Your task to perform on an android device: open a bookmark in the chrome app Image 0: 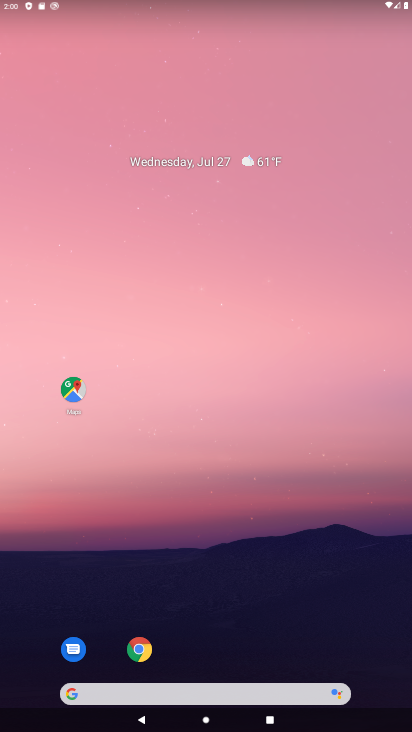
Step 0: click (144, 657)
Your task to perform on an android device: open a bookmark in the chrome app Image 1: 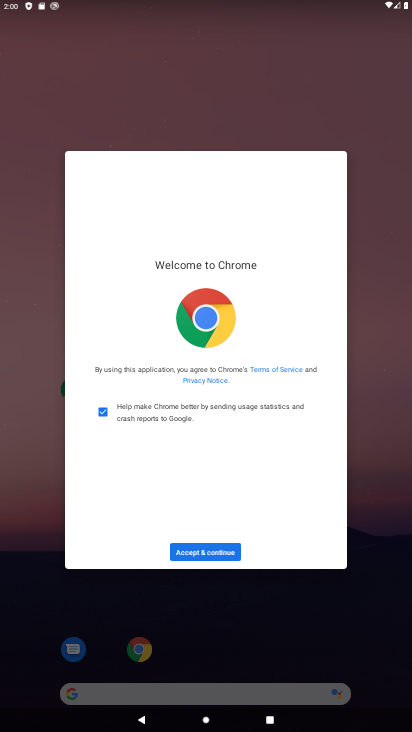
Step 1: click (193, 553)
Your task to perform on an android device: open a bookmark in the chrome app Image 2: 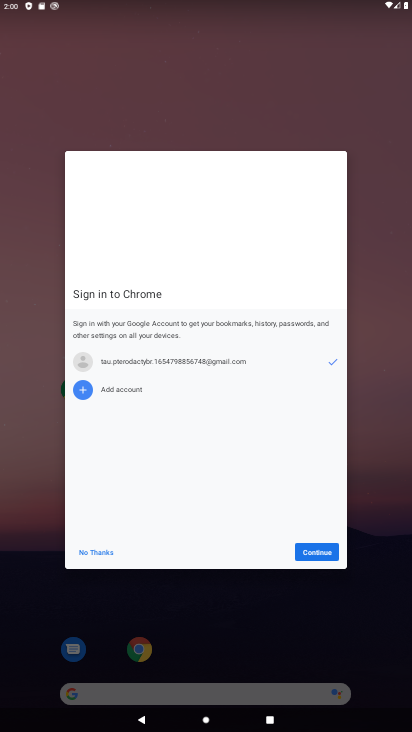
Step 2: click (311, 553)
Your task to perform on an android device: open a bookmark in the chrome app Image 3: 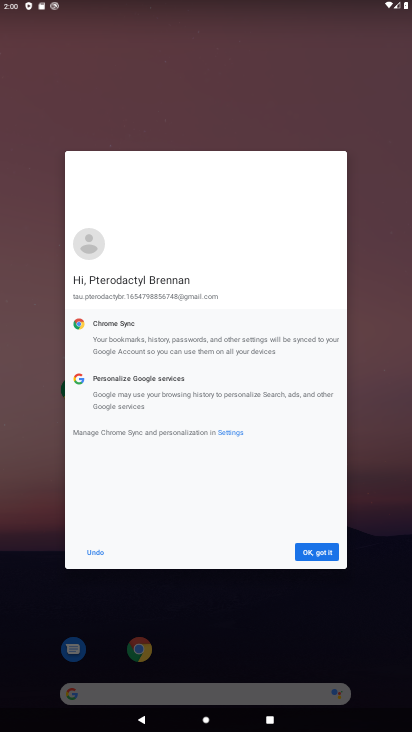
Step 3: click (311, 553)
Your task to perform on an android device: open a bookmark in the chrome app Image 4: 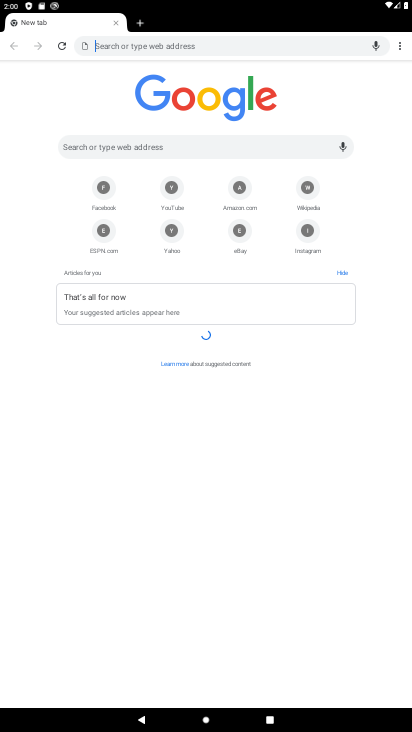
Step 4: click (398, 47)
Your task to perform on an android device: open a bookmark in the chrome app Image 5: 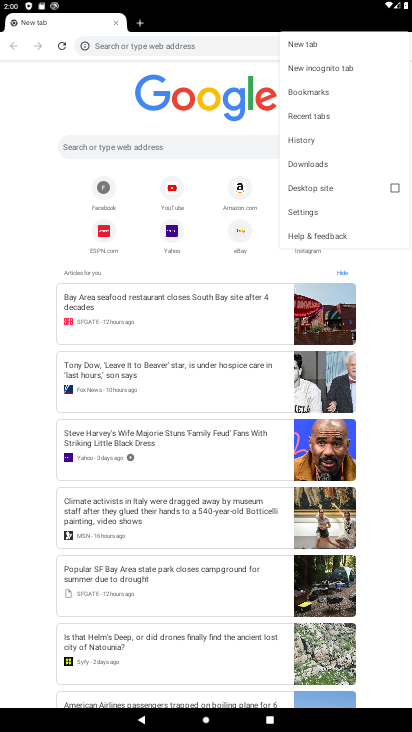
Step 5: click (315, 91)
Your task to perform on an android device: open a bookmark in the chrome app Image 6: 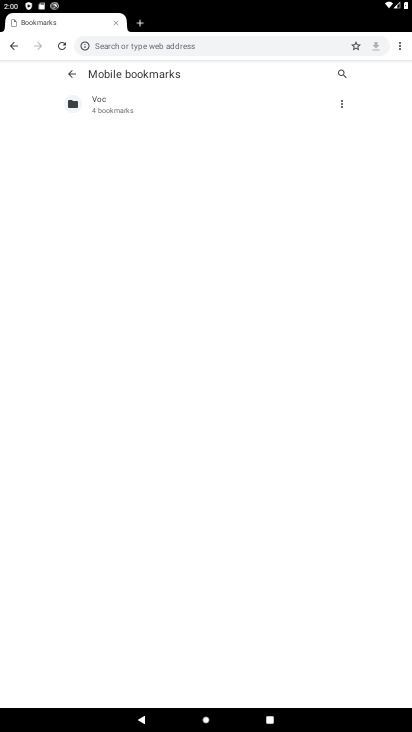
Step 6: click (119, 106)
Your task to perform on an android device: open a bookmark in the chrome app Image 7: 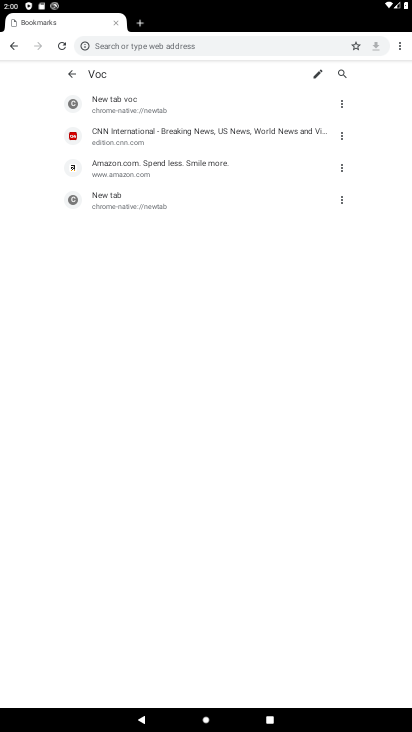
Step 7: click (102, 130)
Your task to perform on an android device: open a bookmark in the chrome app Image 8: 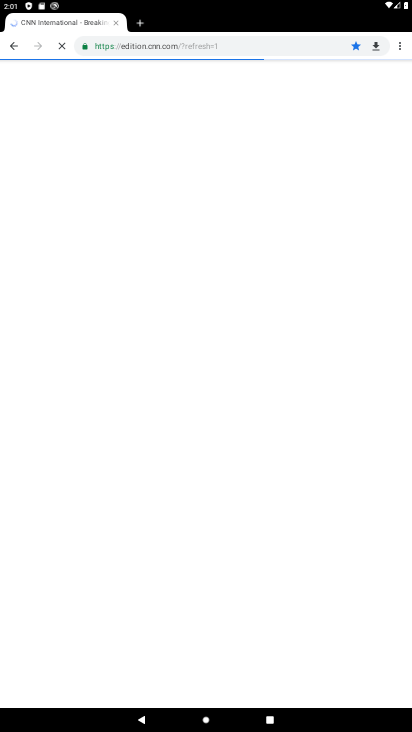
Step 8: task complete